Your task to perform on an android device: open wifi settings Image 0: 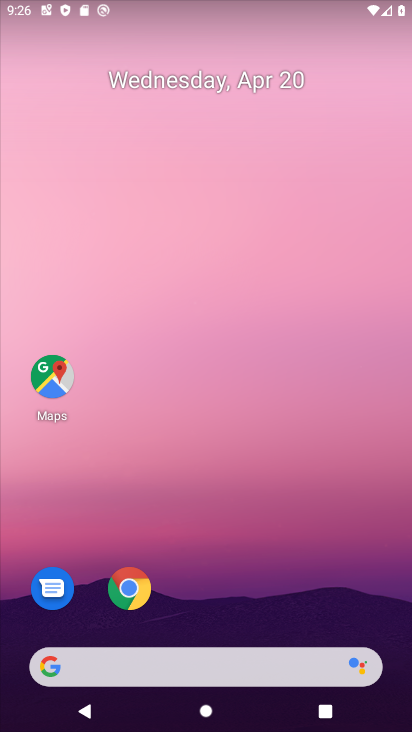
Step 0: drag from (218, 581) to (117, 134)
Your task to perform on an android device: open wifi settings Image 1: 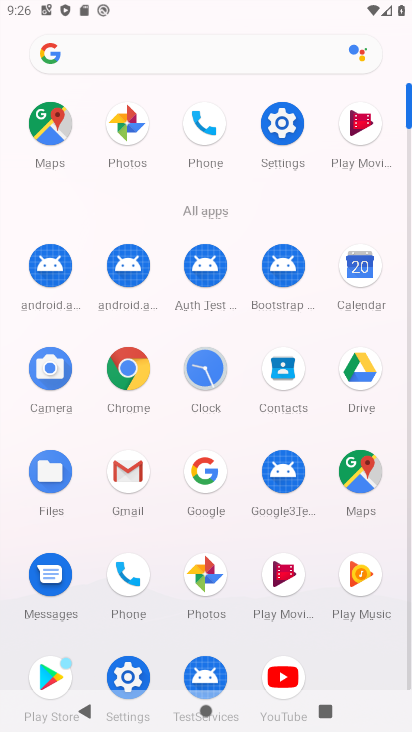
Step 1: click (289, 132)
Your task to perform on an android device: open wifi settings Image 2: 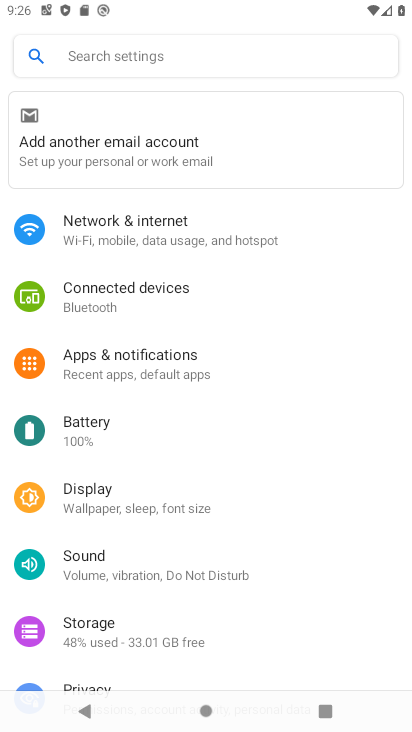
Step 2: click (120, 231)
Your task to perform on an android device: open wifi settings Image 3: 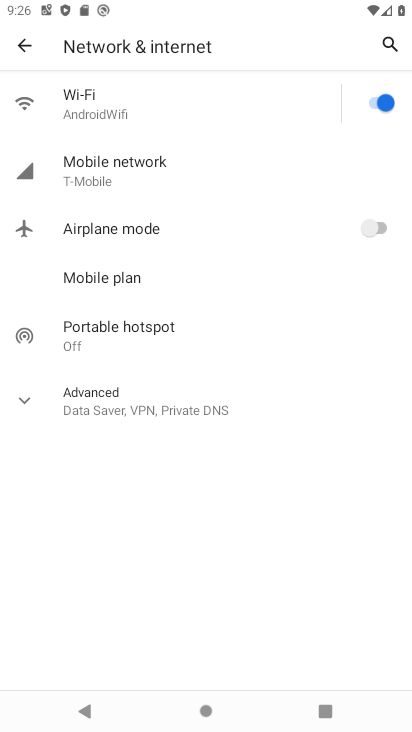
Step 3: click (104, 109)
Your task to perform on an android device: open wifi settings Image 4: 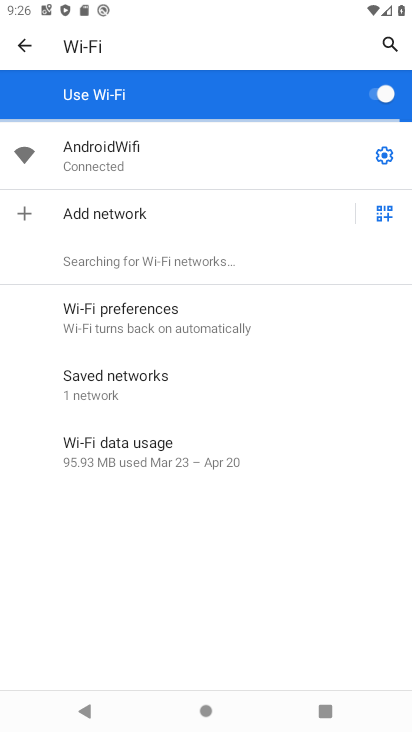
Step 4: task complete